Your task to perform on an android device: turn off priority inbox in the gmail app Image 0: 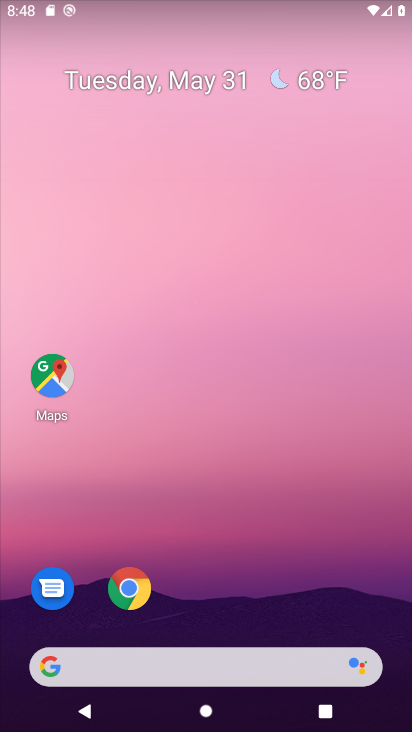
Step 0: drag from (234, 660) to (367, 181)
Your task to perform on an android device: turn off priority inbox in the gmail app Image 1: 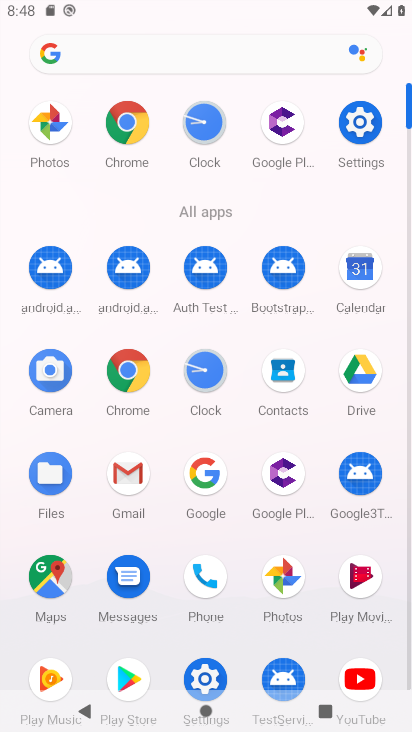
Step 1: click (134, 487)
Your task to perform on an android device: turn off priority inbox in the gmail app Image 2: 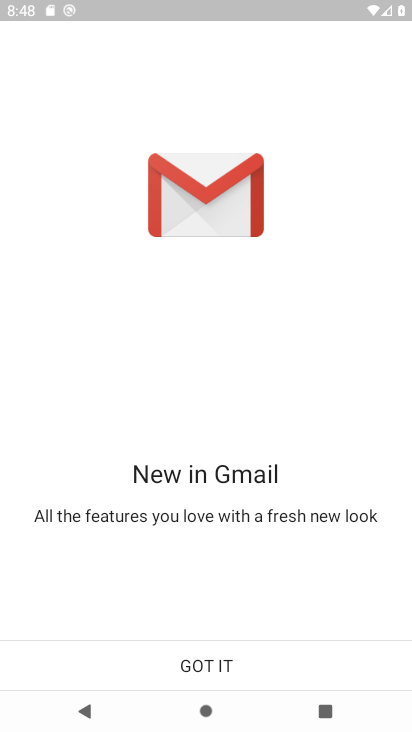
Step 2: click (214, 668)
Your task to perform on an android device: turn off priority inbox in the gmail app Image 3: 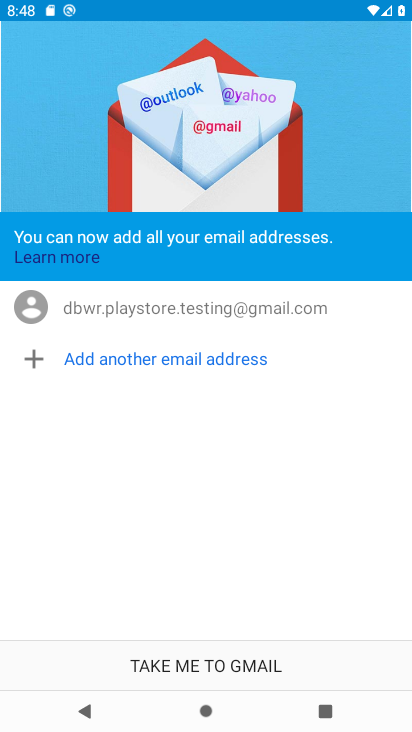
Step 3: click (214, 669)
Your task to perform on an android device: turn off priority inbox in the gmail app Image 4: 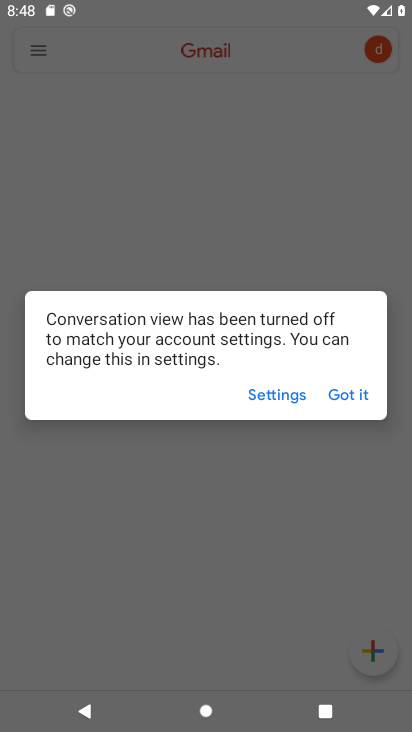
Step 4: click (350, 395)
Your task to perform on an android device: turn off priority inbox in the gmail app Image 5: 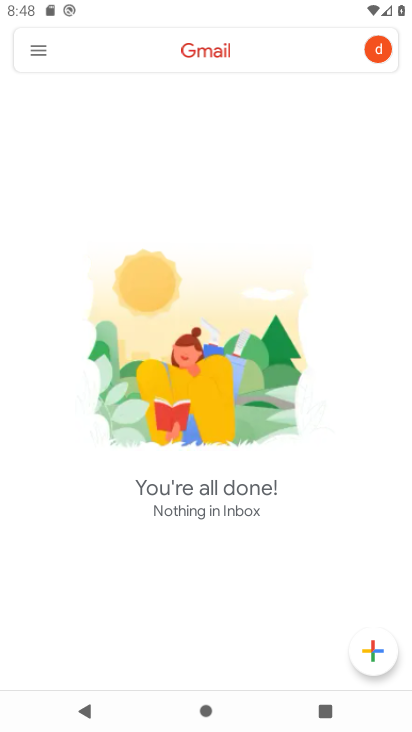
Step 5: click (37, 44)
Your task to perform on an android device: turn off priority inbox in the gmail app Image 6: 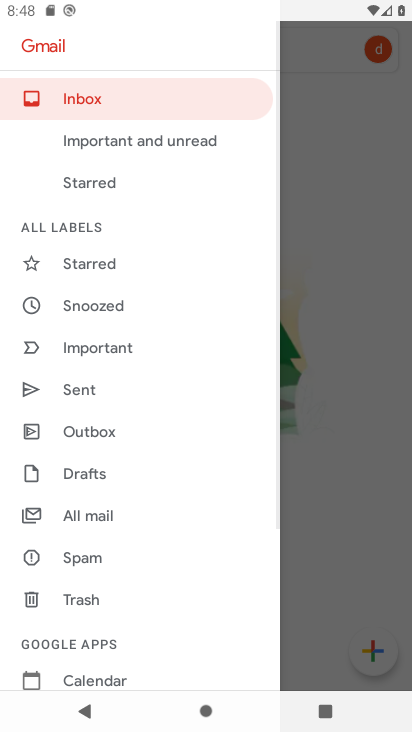
Step 6: drag from (140, 653) to (243, 222)
Your task to perform on an android device: turn off priority inbox in the gmail app Image 7: 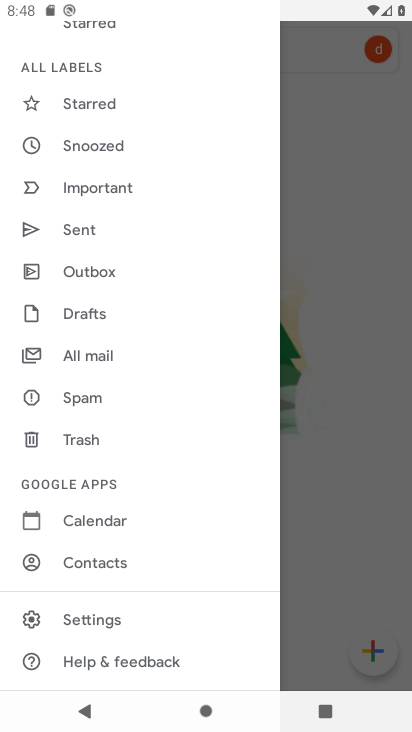
Step 7: click (109, 621)
Your task to perform on an android device: turn off priority inbox in the gmail app Image 8: 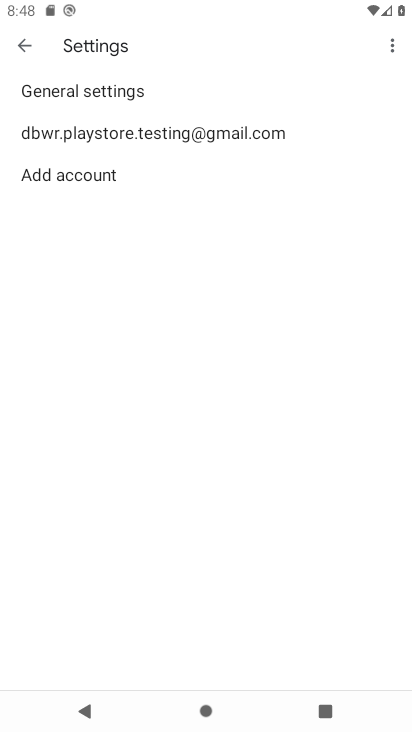
Step 8: click (228, 136)
Your task to perform on an android device: turn off priority inbox in the gmail app Image 9: 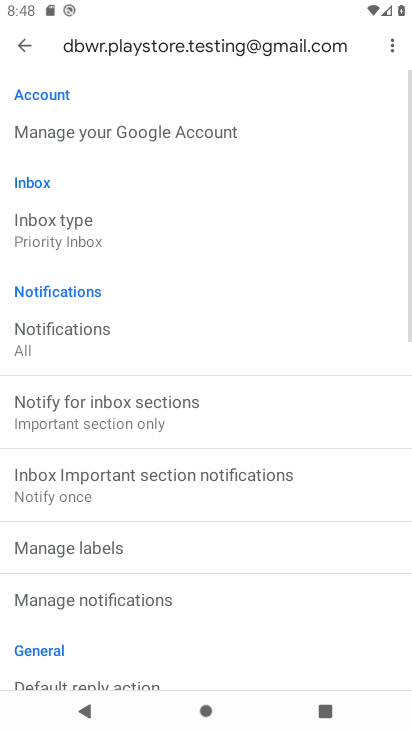
Step 9: click (70, 238)
Your task to perform on an android device: turn off priority inbox in the gmail app Image 10: 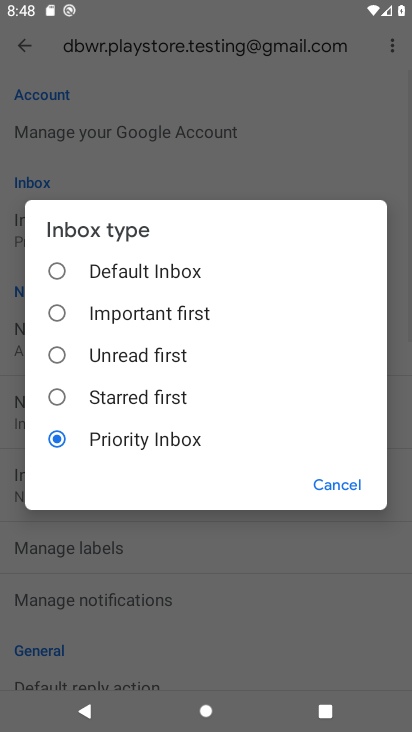
Step 10: click (53, 271)
Your task to perform on an android device: turn off priority inbox in the gmail app Image 11: 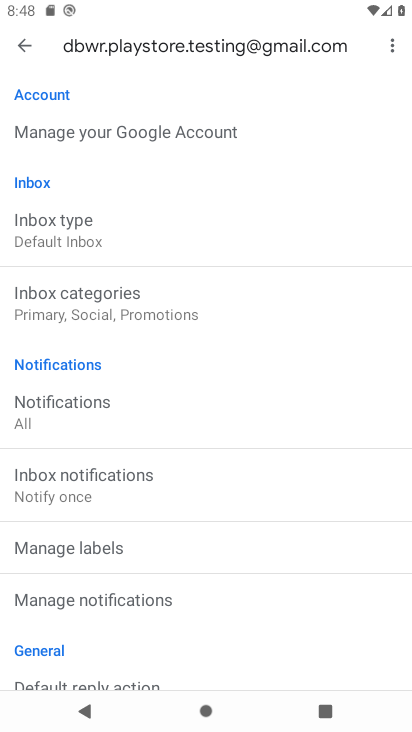
Step 11: task complete